Your task to perform on an android device: turn on the 24-hour format for clock Image 0: 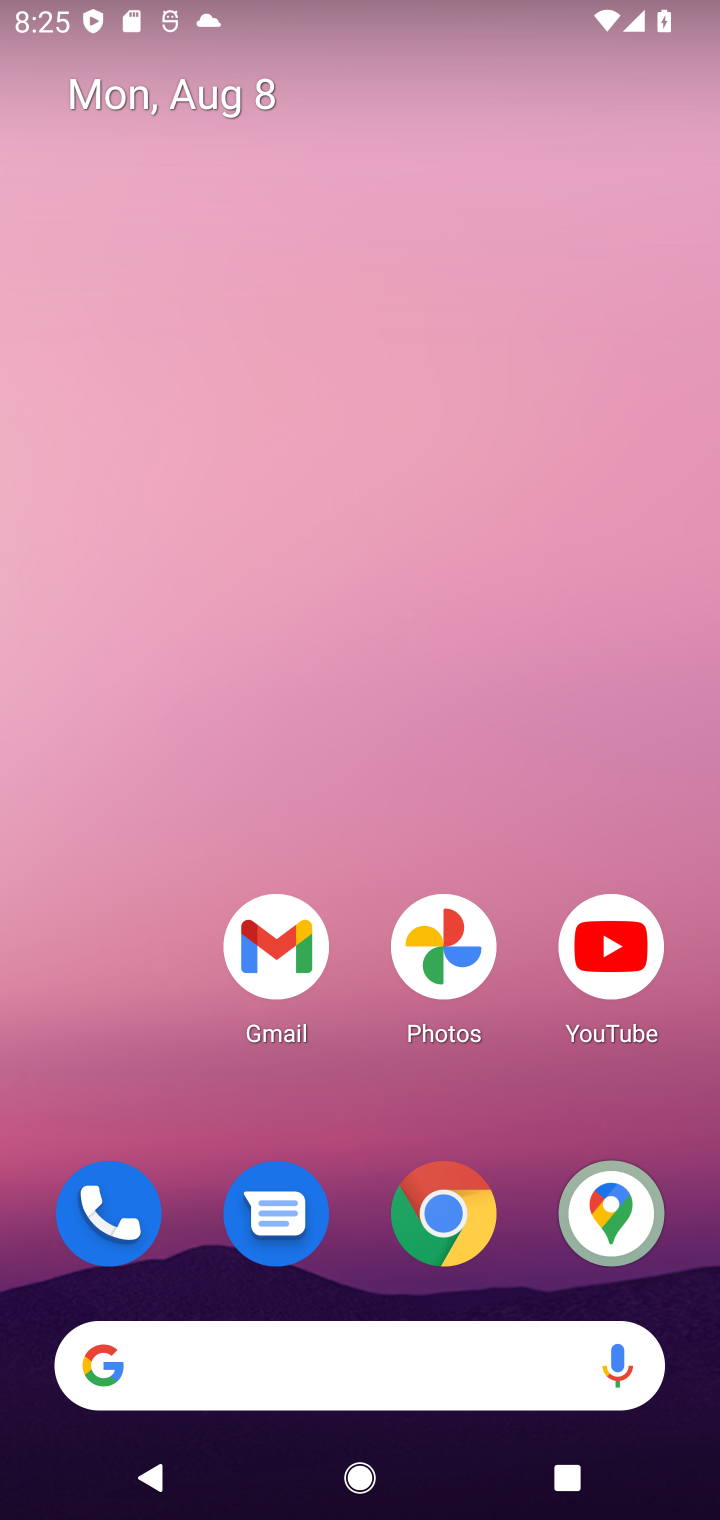
Step 0: drag from (318, 1125) to (367, 140)
Your task to perform on an android device: turn on the 24-hour format for clock Image 1: 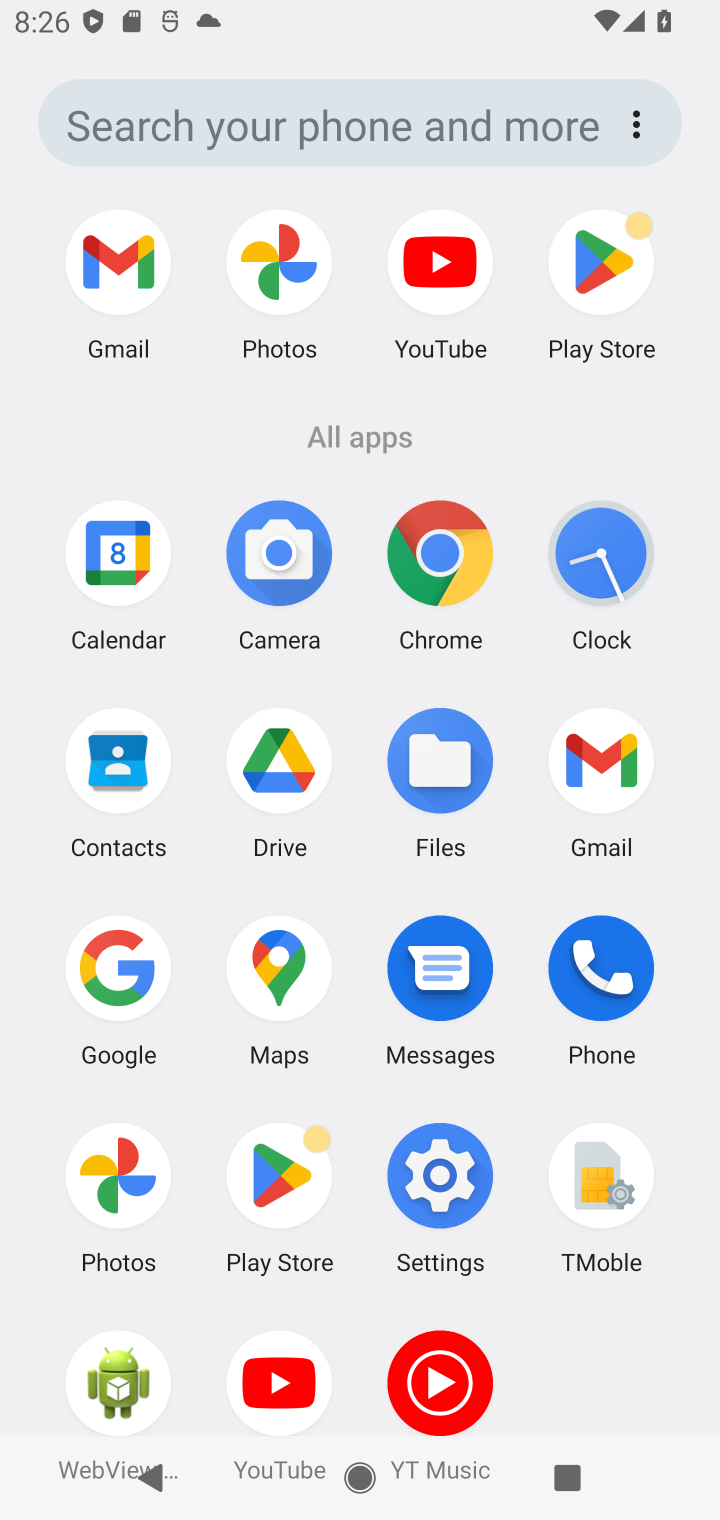
Step 1: click (624, 510)
Your task to perform on an android device: turn on the 24-hour format for clock Image 2: 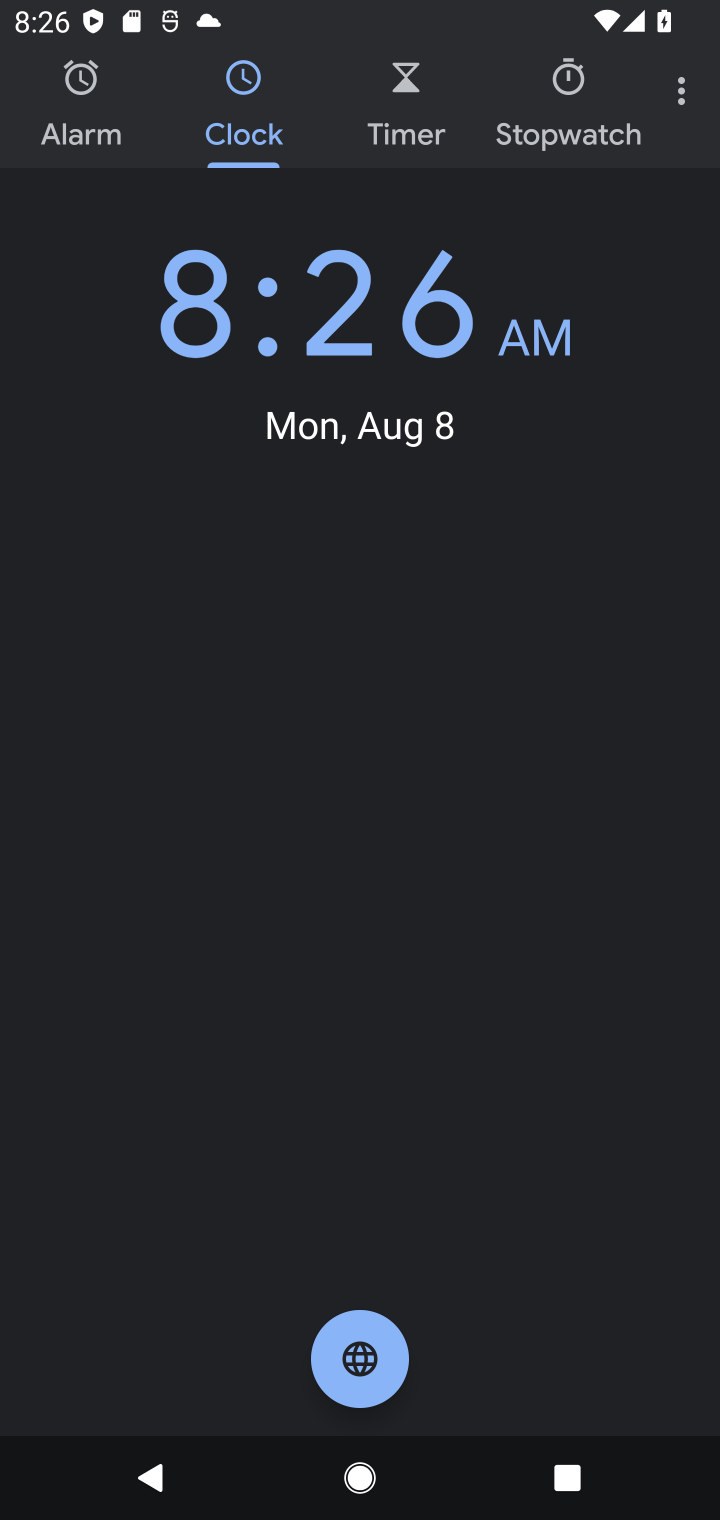
Step 2: click (686, 98)
Your task to perform on an android device: turn on the 24-hour format for clock Image 3: 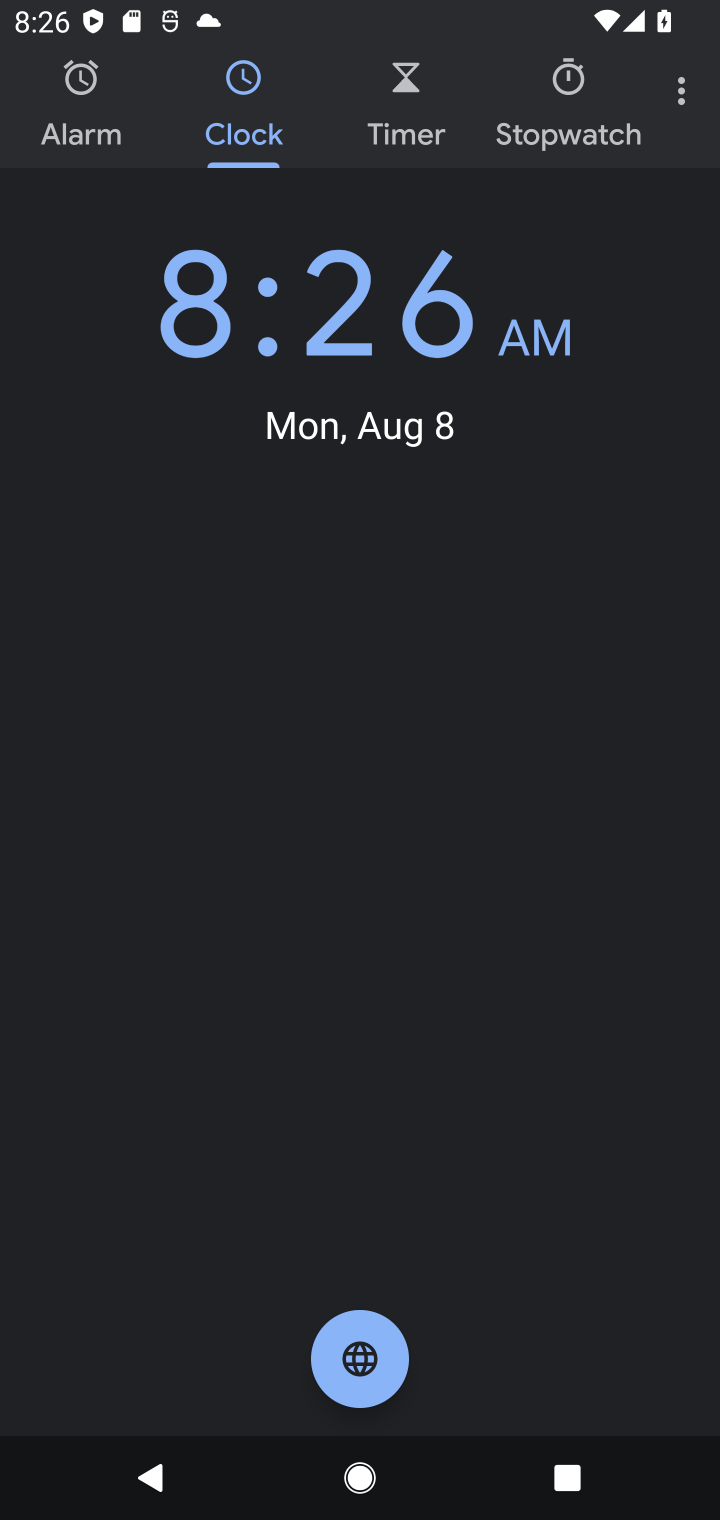
Step 3: click (680, 110)
Your task to perform on an android device: turn on the 24-hour format for clock Image 4: 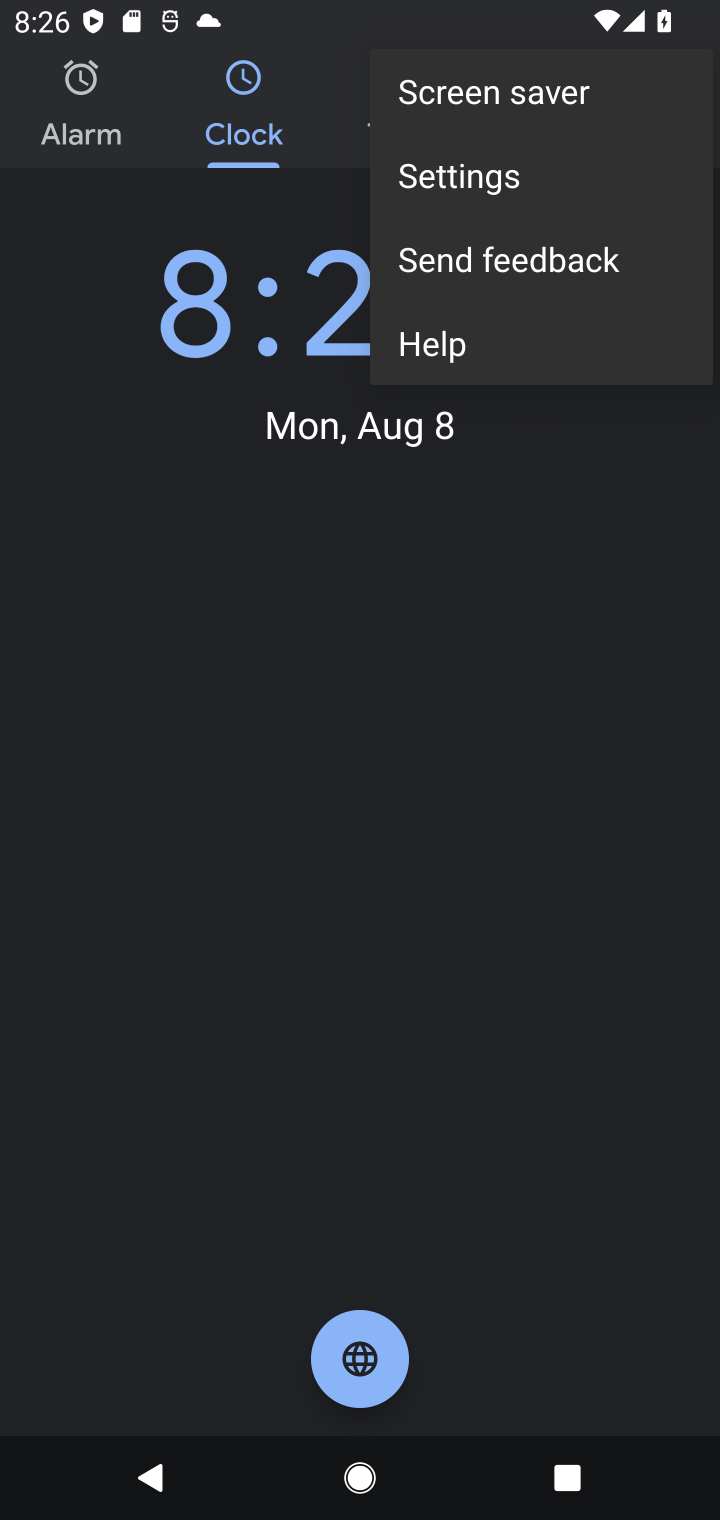
Step 4: click (507, 191)
Your task to perform on an android device: turn on the 24-hour format for clock Image 5: 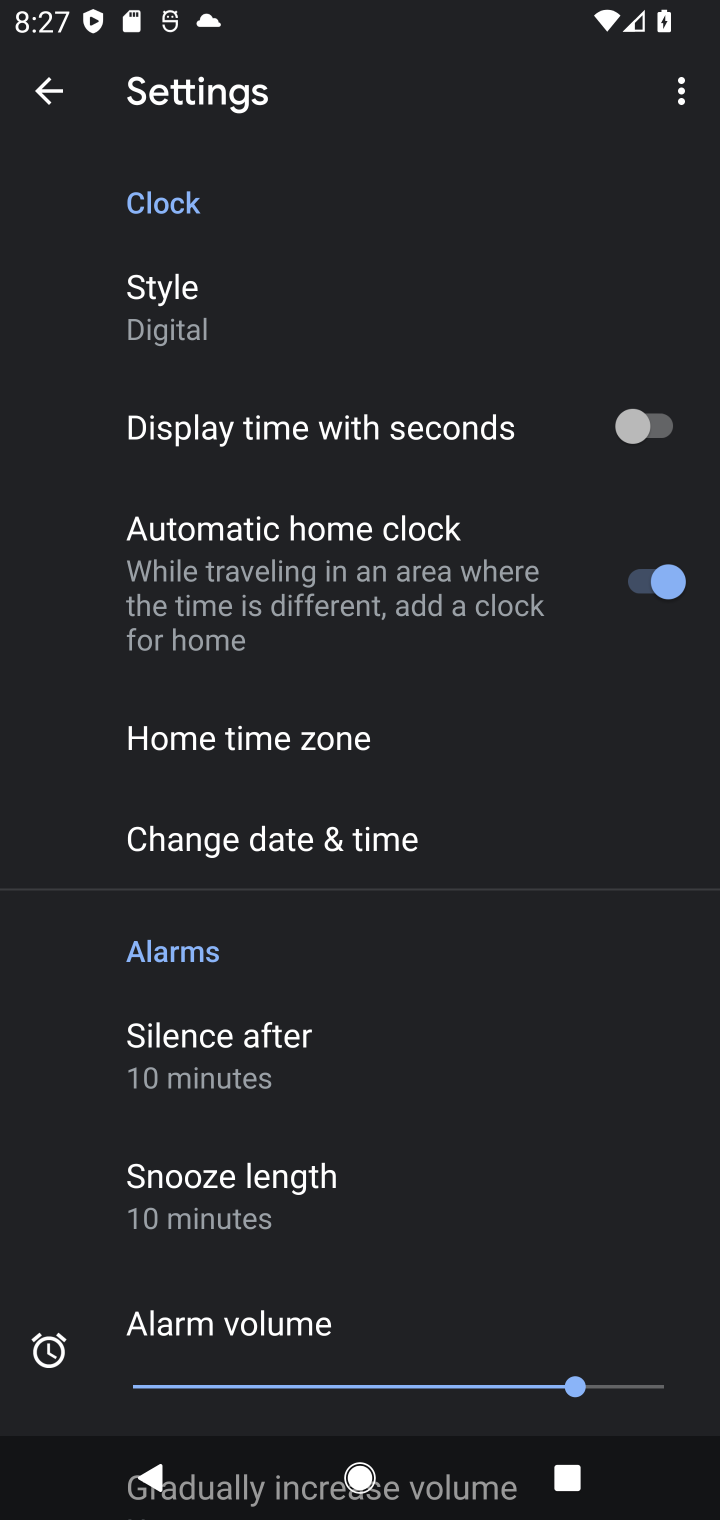
Step 5: click (298, 868)
Your task to perform on an android device: turn on the 24-hour format for clock Image 6: 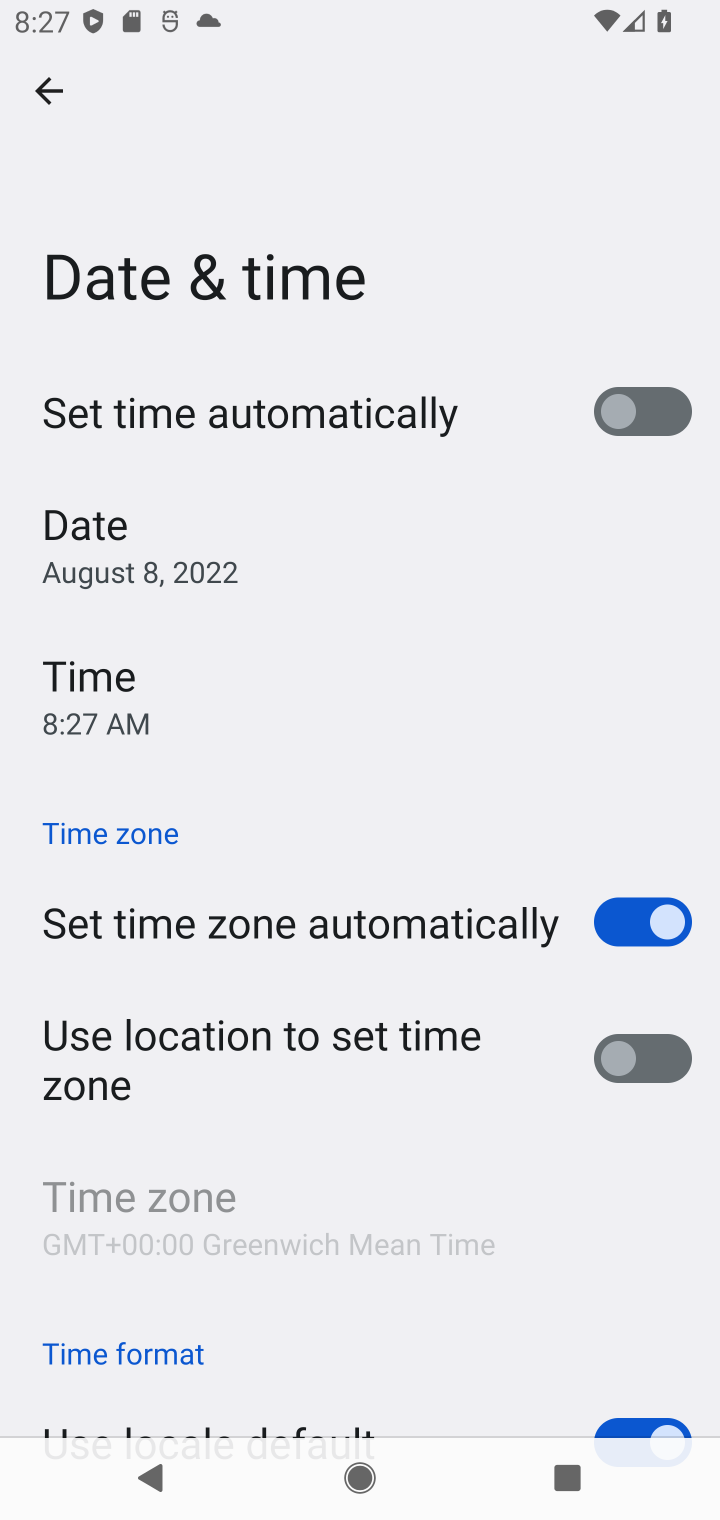
Step 6: drag from (349, 1180) to (328, 414)
Your task to perform on an android device: turn on the 24-hour format for clock Image 7: 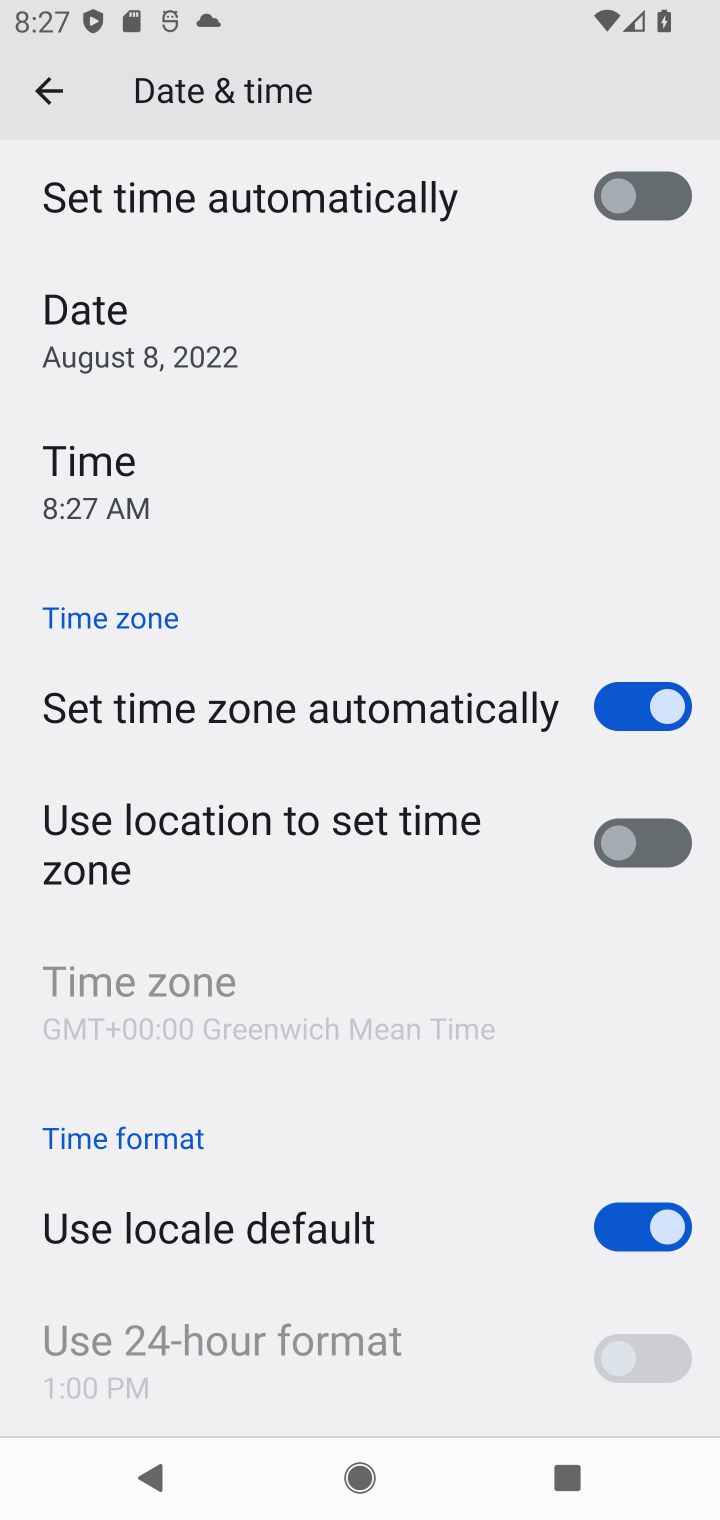
Step 7: click (671, 1233)
Your task to perform on an android device: turn on the 24-hour format for clock Image 8: 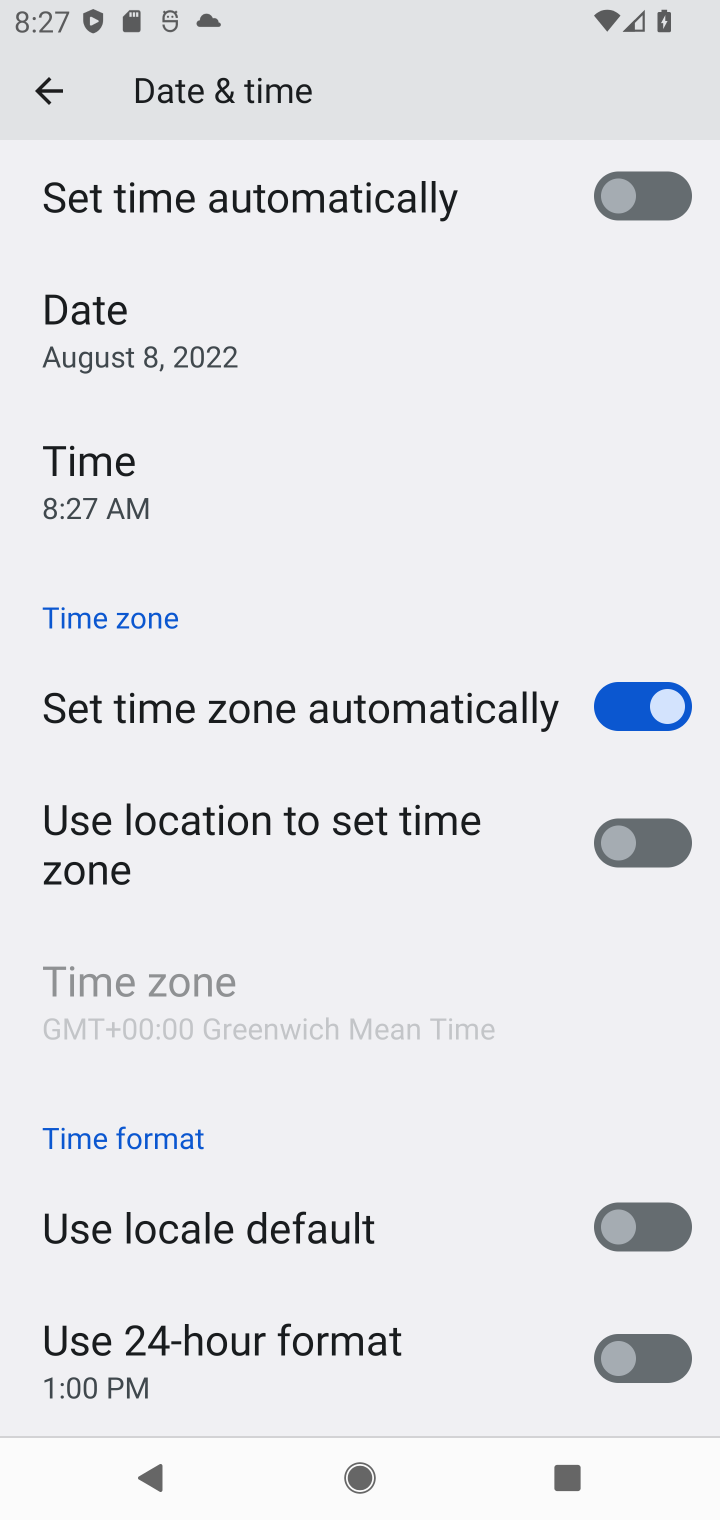
Step 8: click (625, 1383)
Your task to perform on an android device: turn on the 24-hour format for clock Image 9: 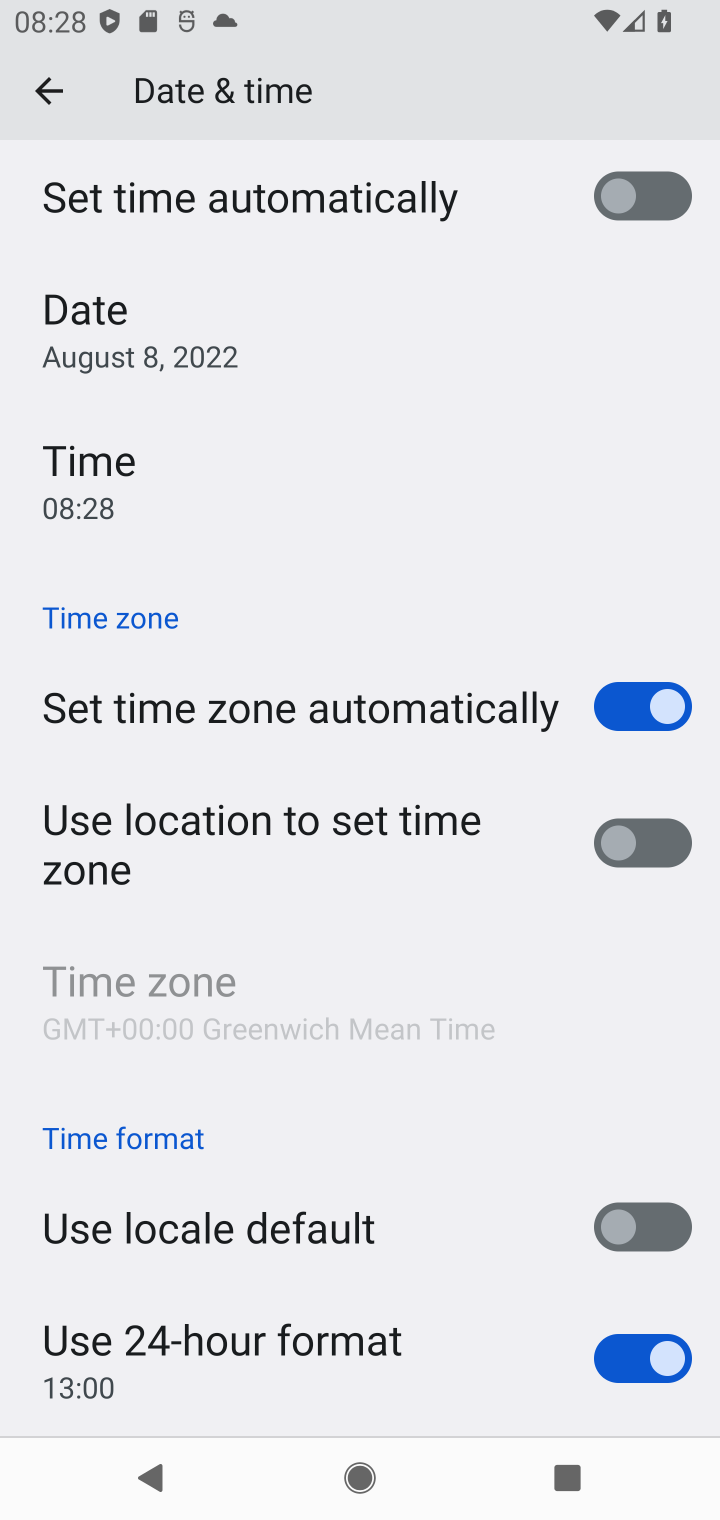
Step 9: task complete